Your task to perform on an android device: check google app version Image 0: 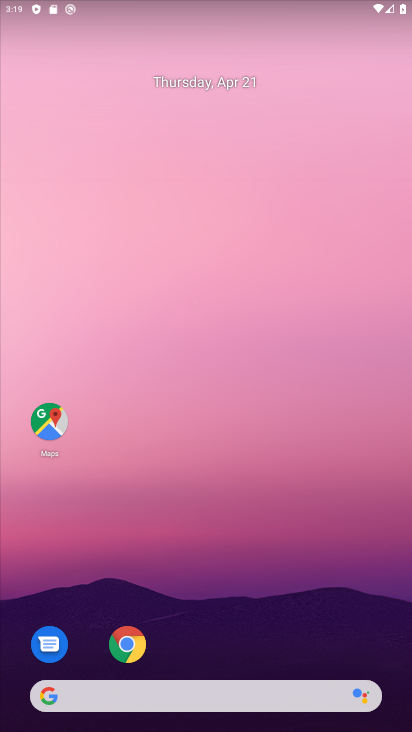
Step 0: press home button
Your task to perform on an android device: check google app version Image 1: 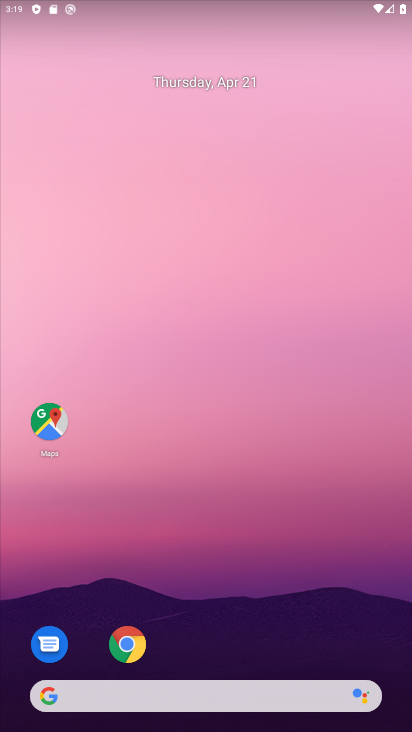
Step 1: drag from (239, 671) to (199, 20)
Your task to perform on an android device: check google app version Image 2: 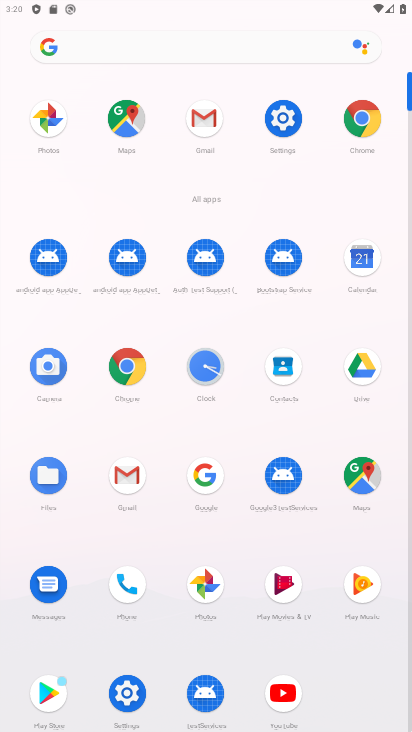
Step 2: click (211, 480)
Your task to perform on an android device: check google app version Image 3: 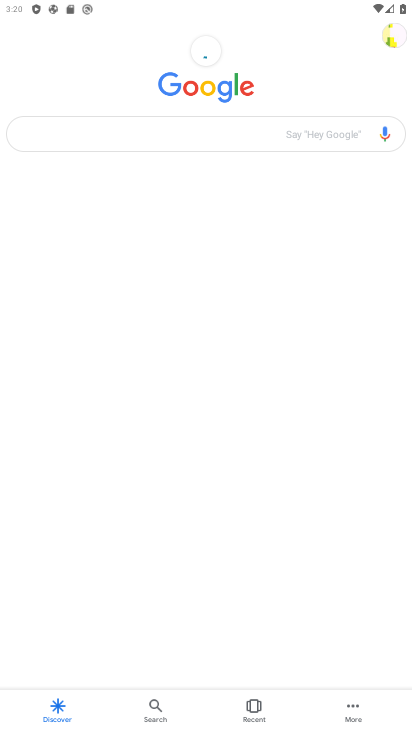
Step 3: press home button
Your task to perform on an android device: check google app version Image 4: 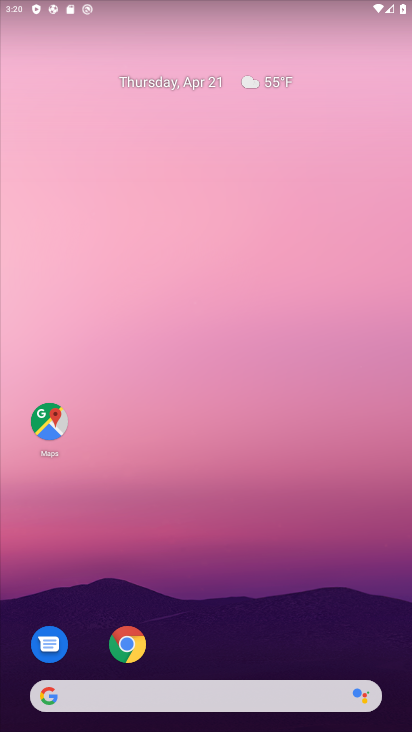
Step 4: drag from (204, 665) to (175, 37)
Your task to perform on an android device: check google app version Image 5: 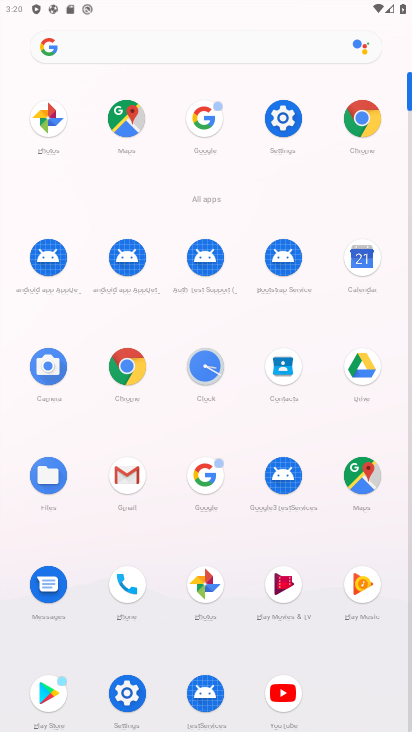
Step 5: click (211, 468)
Your task to perform on an android device: check google app version Image 6: 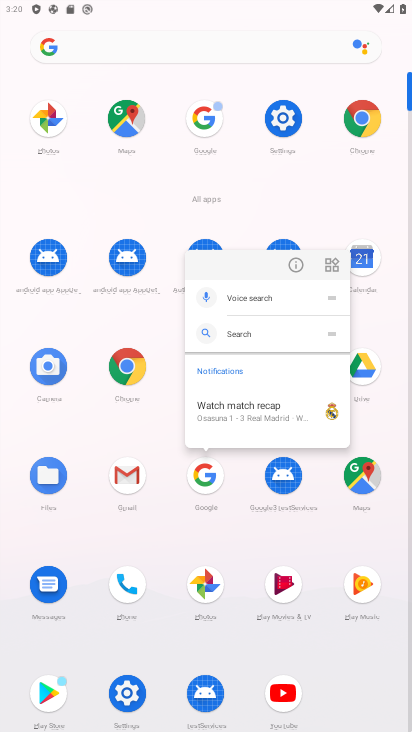
Step 6: click (286, 261)
Your task to perform on an android device: check google app version Image 7: 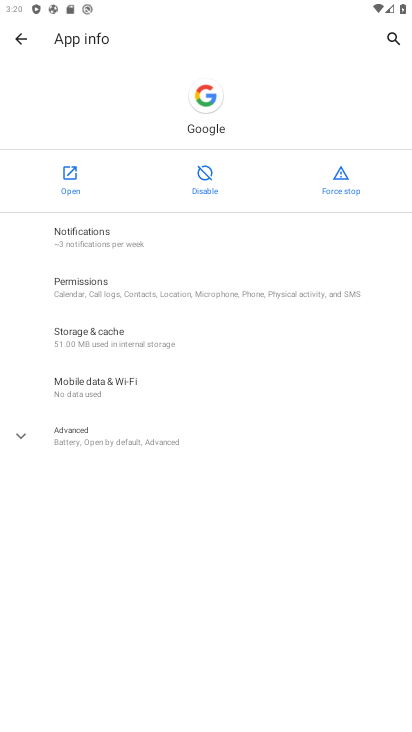
Step 7: click (21, 428)
Your task to perform on an android device: check google app version Image 8: 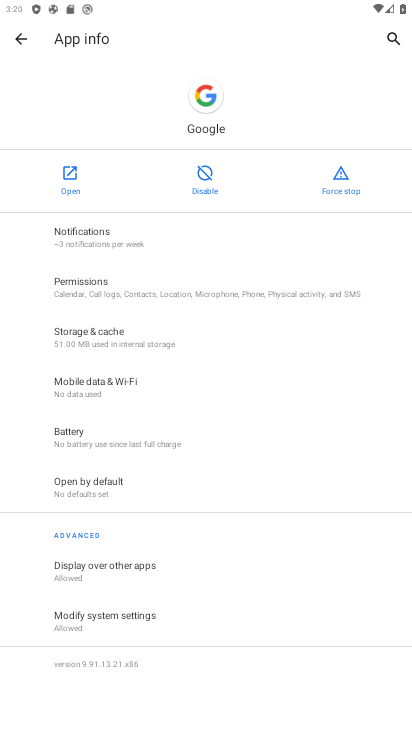
Step 8: task complete